Your task to perform on an android device: Go to Reddit.com Image 0: 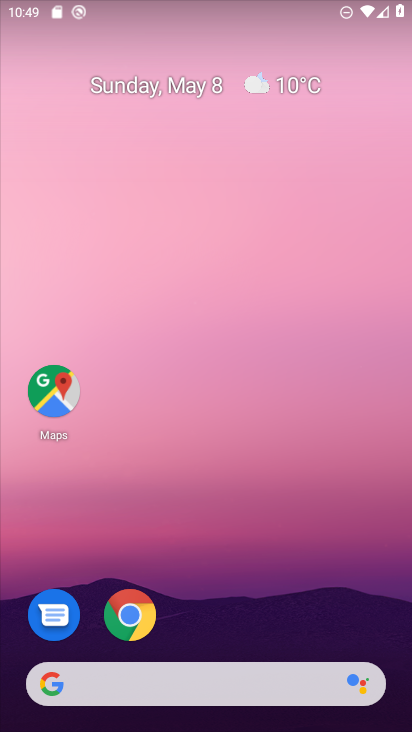
Step 0: drag from (247, 615) to (219, 16)
Your task to perform on an android device: Go to Reddit.com Image 1: 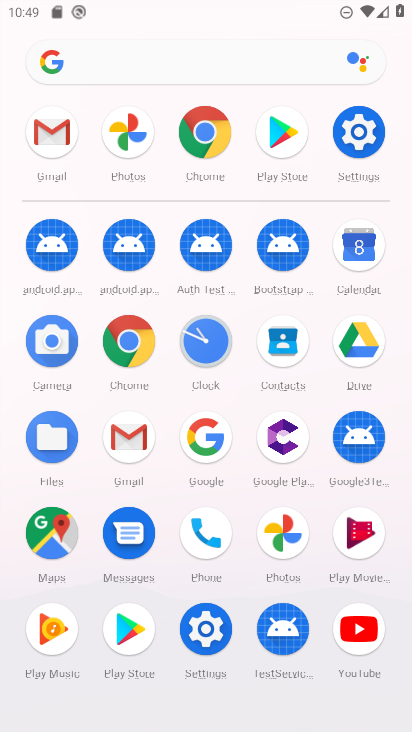
Step 1: click (123, 354)
Your task to perform on an android device: Go to Reddit.com Image 2: 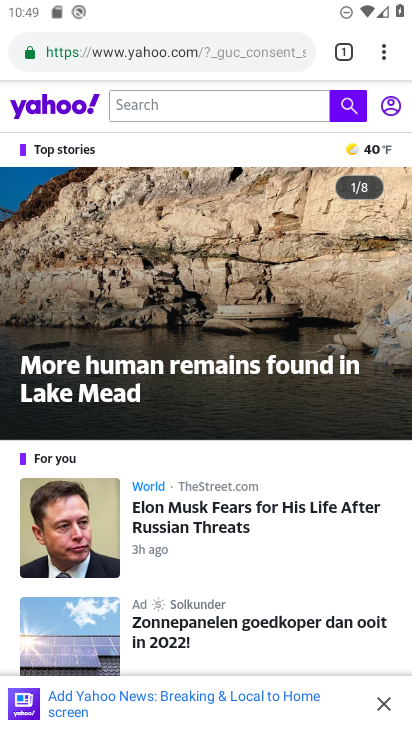
Step 2: click (206, 33)
Your task to perform on an android device: Go to Reddit.com Image 3: 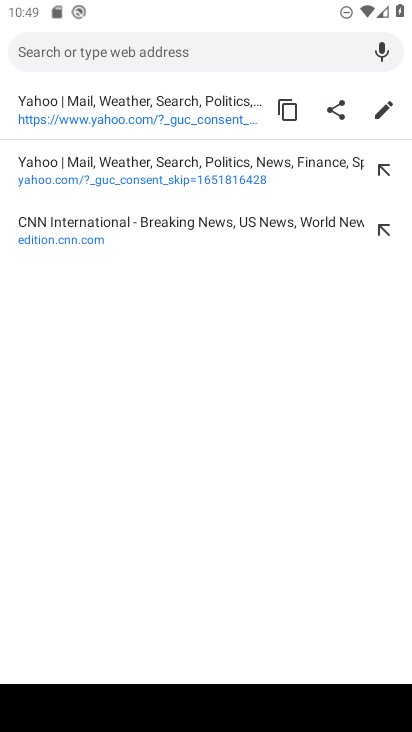
Step 3: type "reddit.com"
Your task to perform on an android device: Go to Reddit.com Image 4: 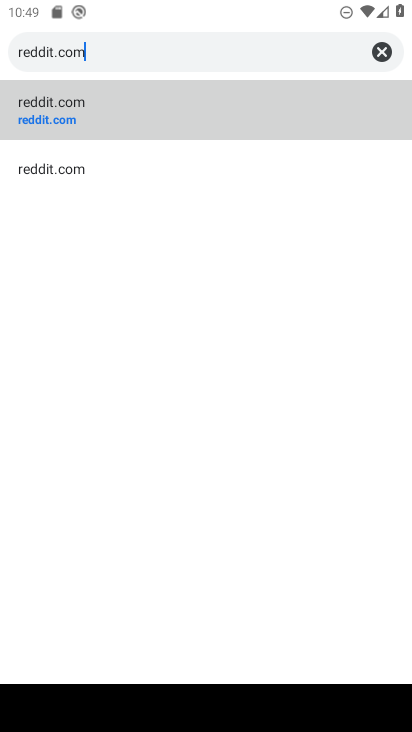
Step 4: click (40, 126)
Your task to perform on an android device: Go to Reddit.com Image 5: 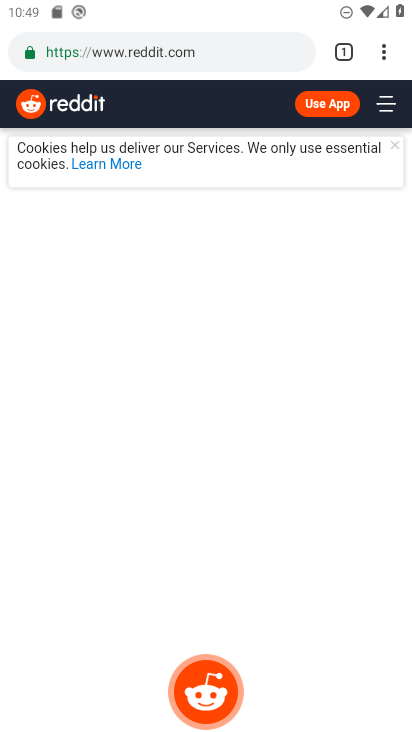
Step 5: task complete